Your task to perform on an android device: open app "ZOOM Cloud Meetings" (install if not already installed) and enter user name: "bauxite@icloud.com" and password: "dim" Image 0: 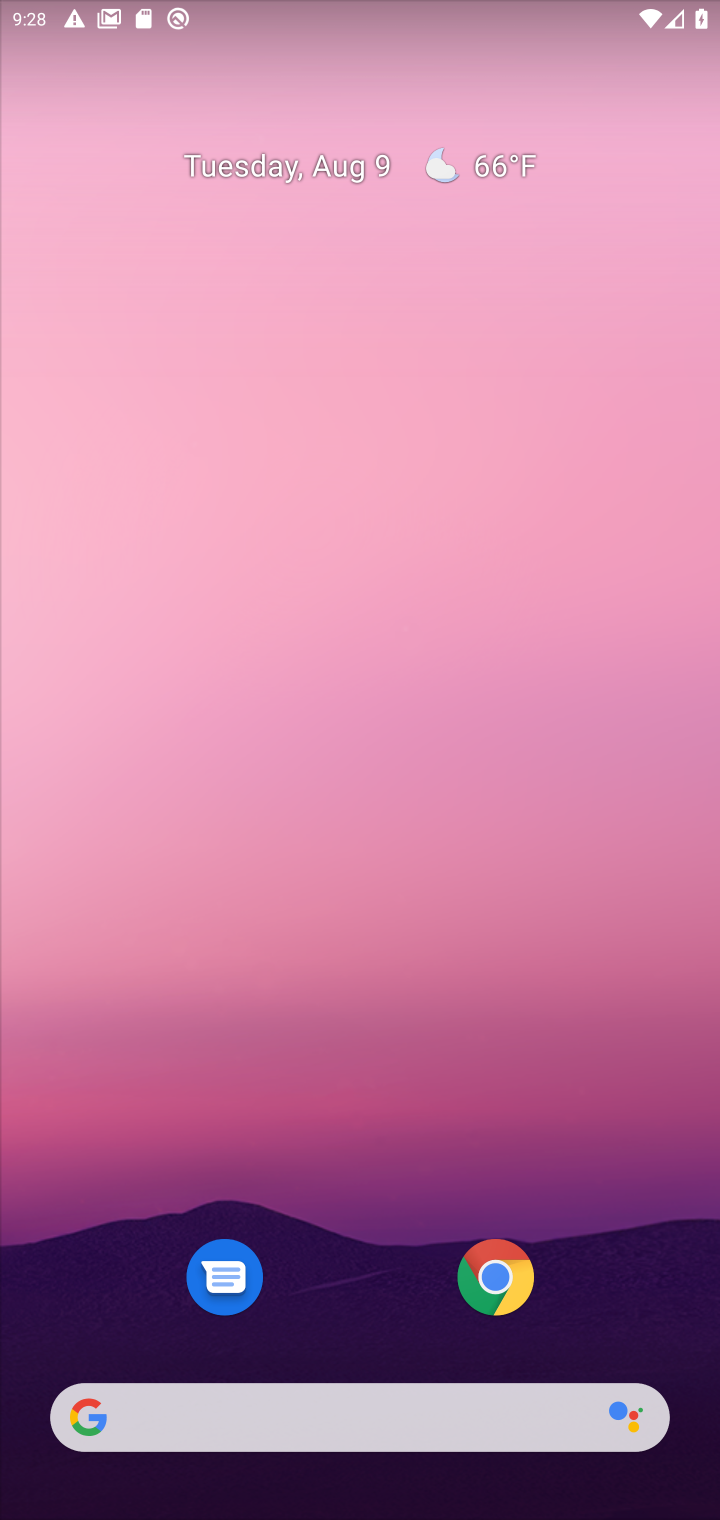
Step 0: press home button
Your task to perform on an android device: open app "ZOOM Cloud Meetings" (install if not already installed) and enter user name: "bauxite@icloud.com" and password: "dim" Image 1: 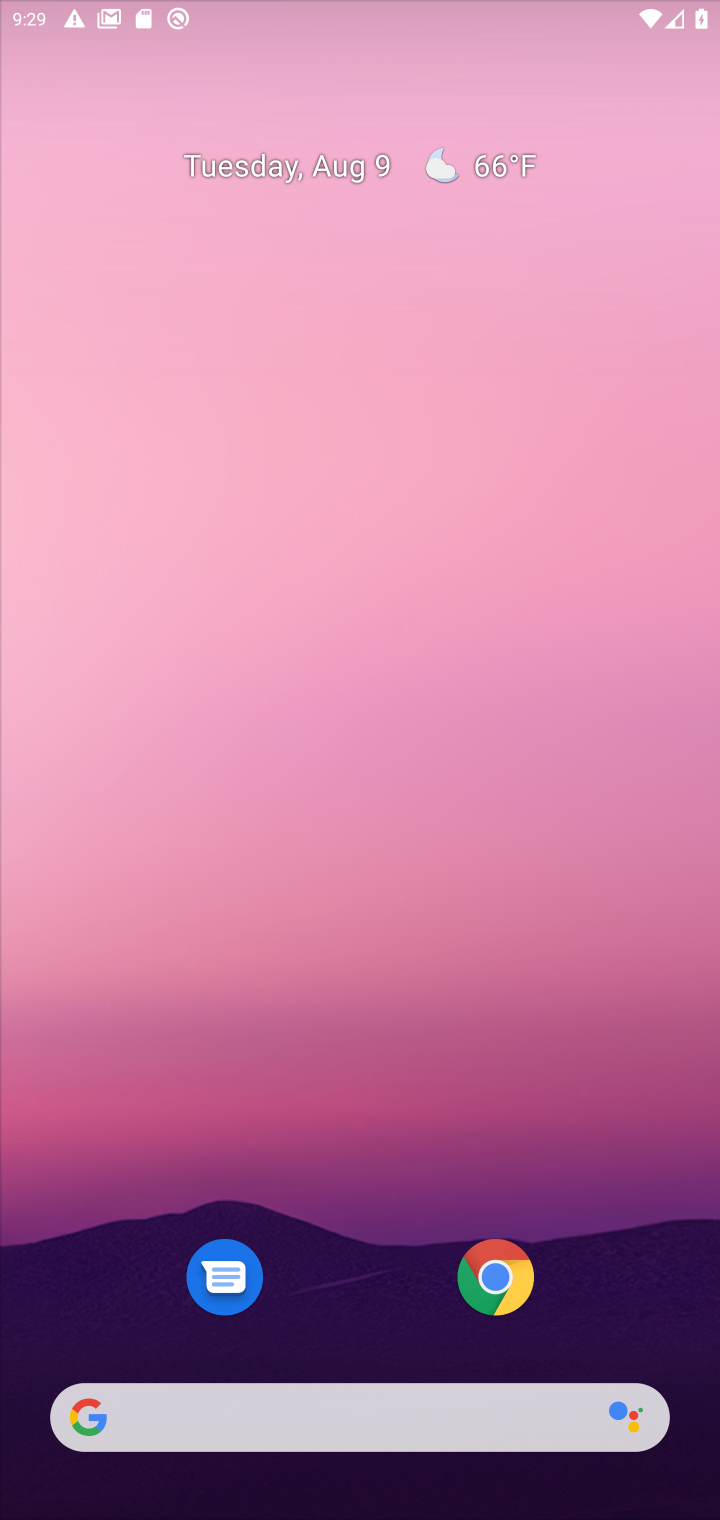
Step 1: drag from (304, 1326) to (173, 26)
Your task to perform on an android device: open app "ZOOM Cloud Meetings" (install if not already installed) and enter user name: "bauxite@icloud.com" and password: "dim" Image 2: 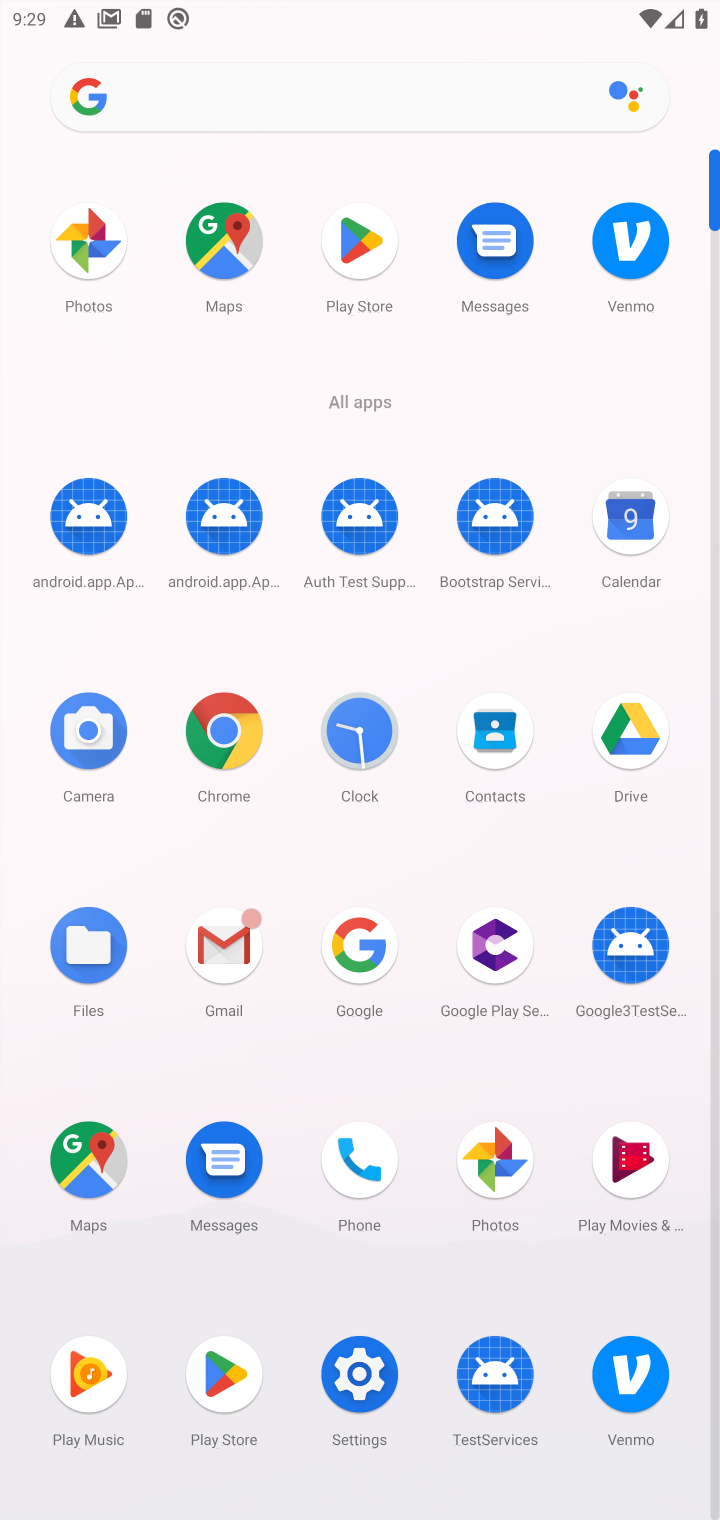
Step 2: click (220, 1418)
Your task to perform on an android device: open app "ZOOM Cloud Meetings" (install if not already installed) and enter user name: "bauxite@icloud.com" and password: "dim" Image 3: 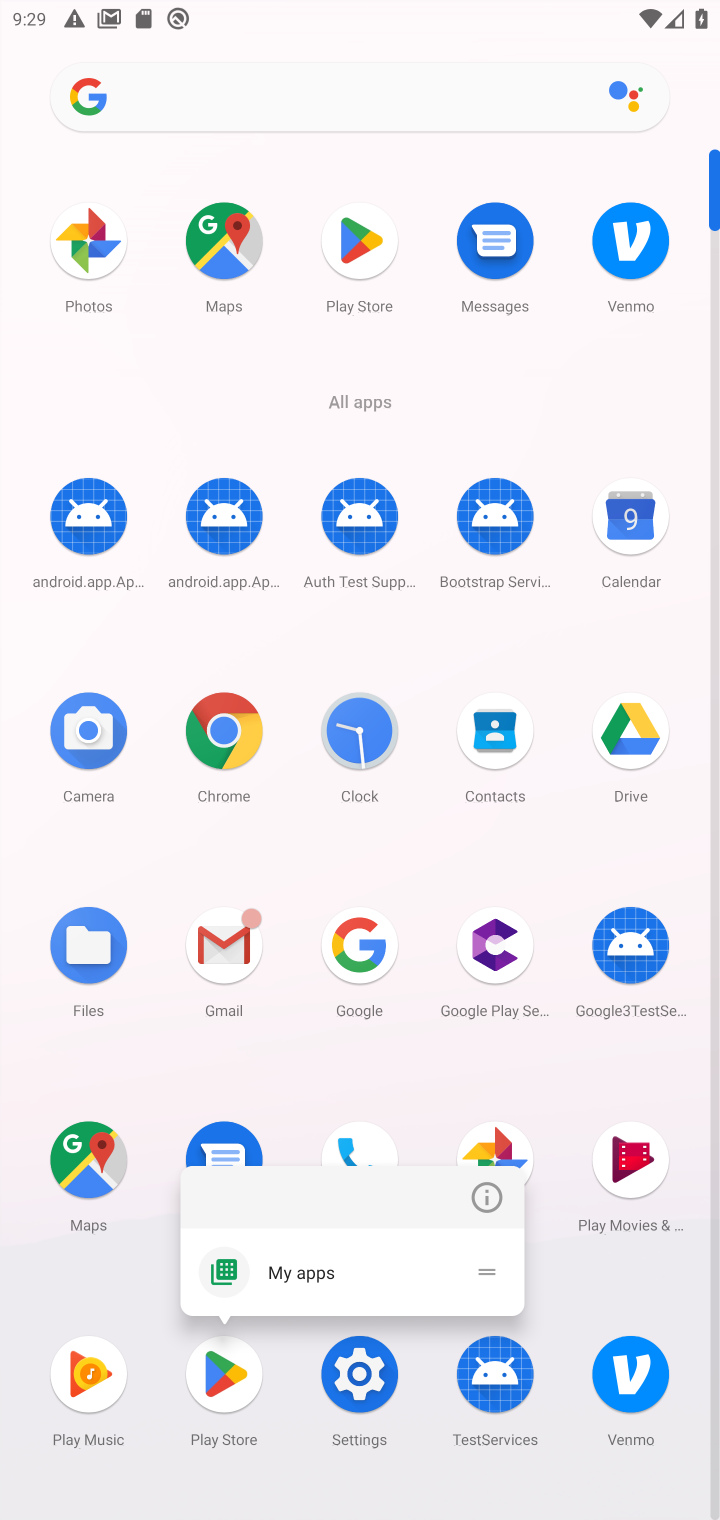
Step 3: click (221, 1416)
Your task to perform on an android device: open app "ZOOM Cloud Meetings" (install if not already installed) and enter user name: "bauxite@icloud.com" and password: "dim" Image 4: 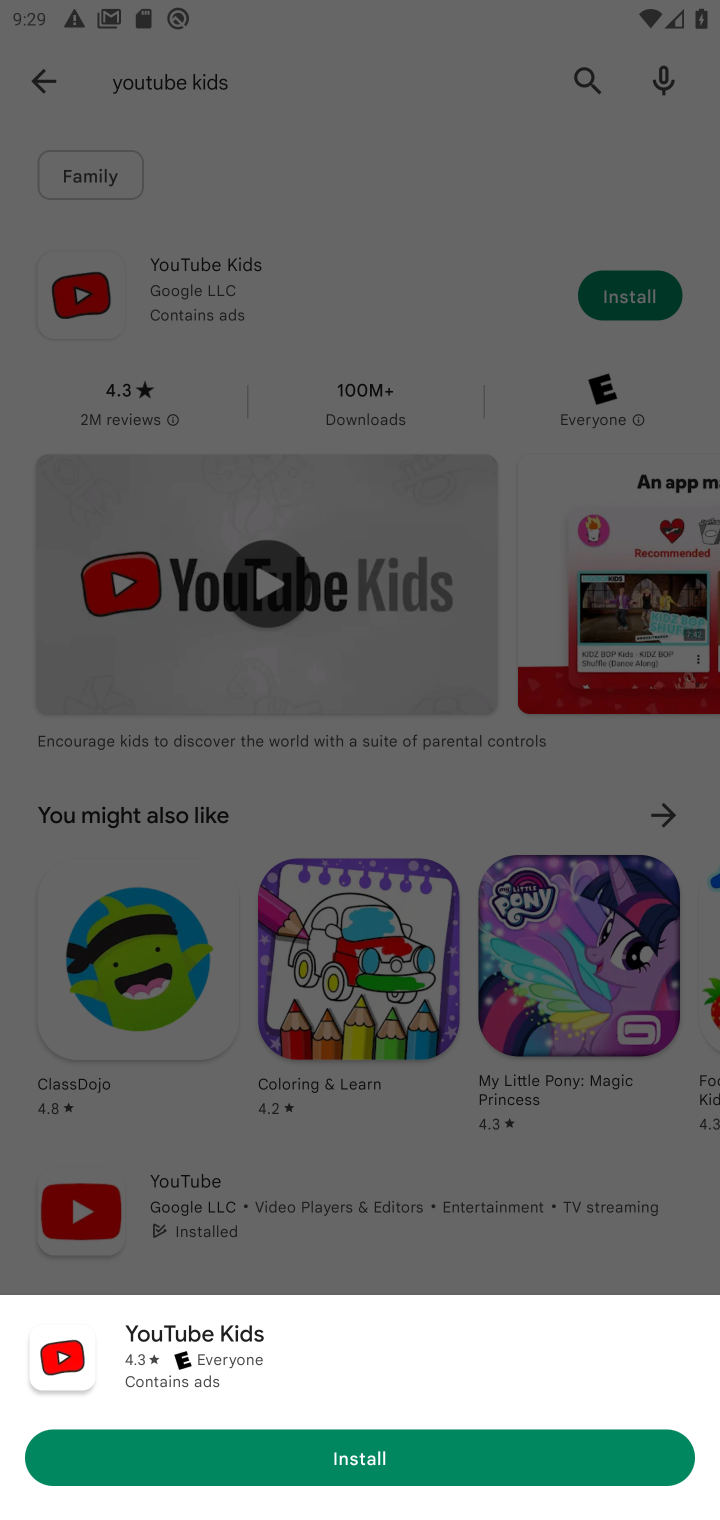
Step 4: press back button
Your task to perform on an android device: open app "ZOOM Cloud Meetings" (install if not already installed) and enter user name: "bauxite@icloud.com" and password: "dim" Image 5: 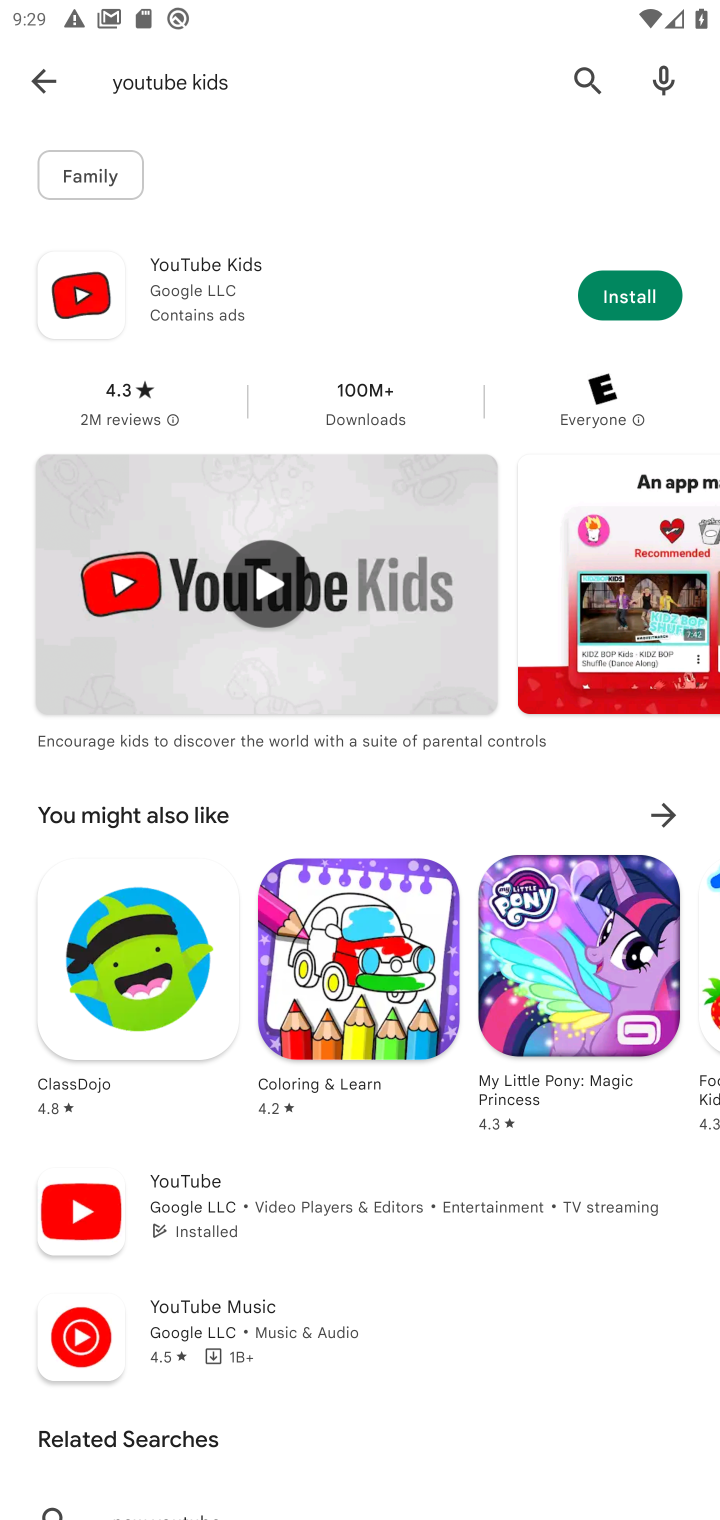
Step 5: click (583, 76)
Your task to perform on an android device: open app "ZOOM Cloud Meetings" (install if not already installed) and enter user name: "bauxite@icloud.com" and password: "dim" Image 6: 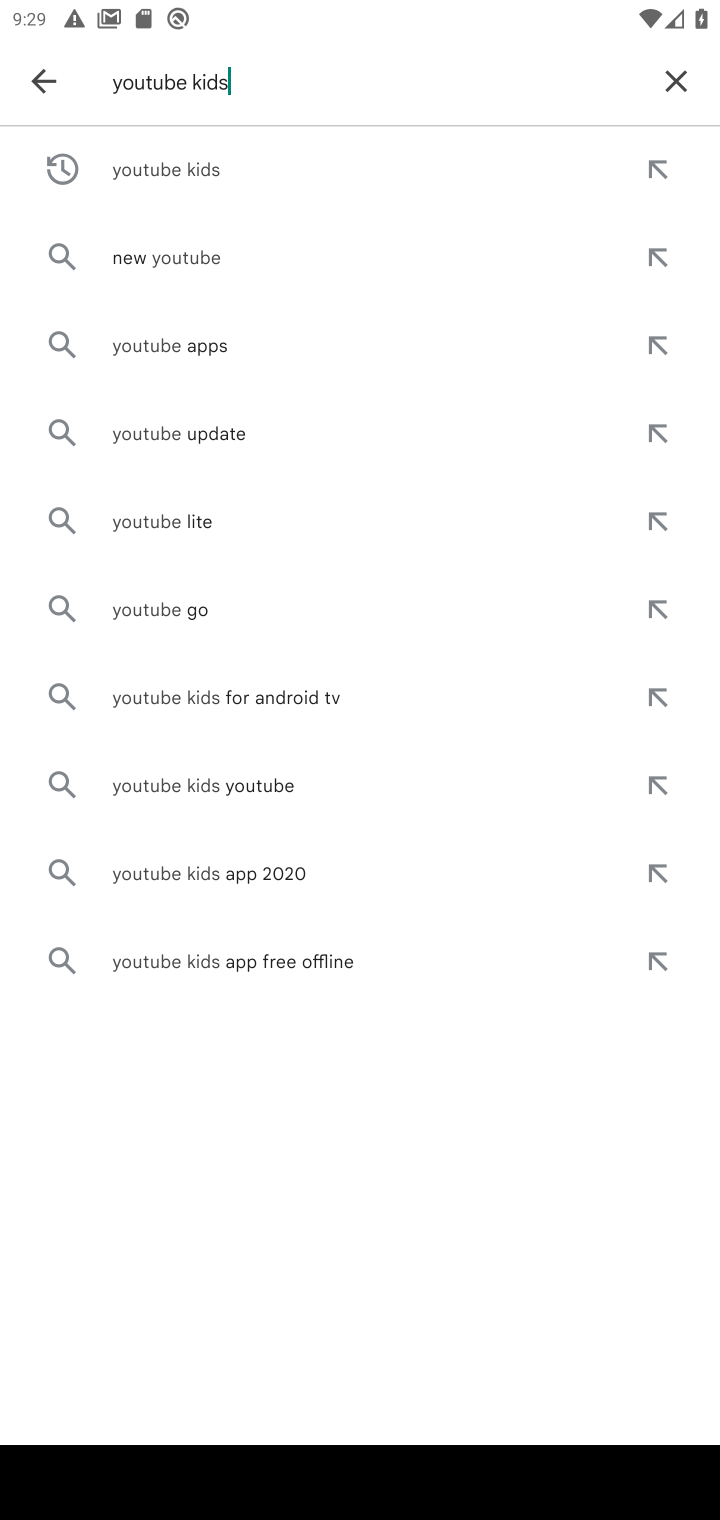
Step 6: click (673, 84)
Your task to perform on an android device: open app "ZOOM Cloud Meetings" (install if not already installed) and enter user name: "bauxite@icloud.com" and password: "dim" Image 7: 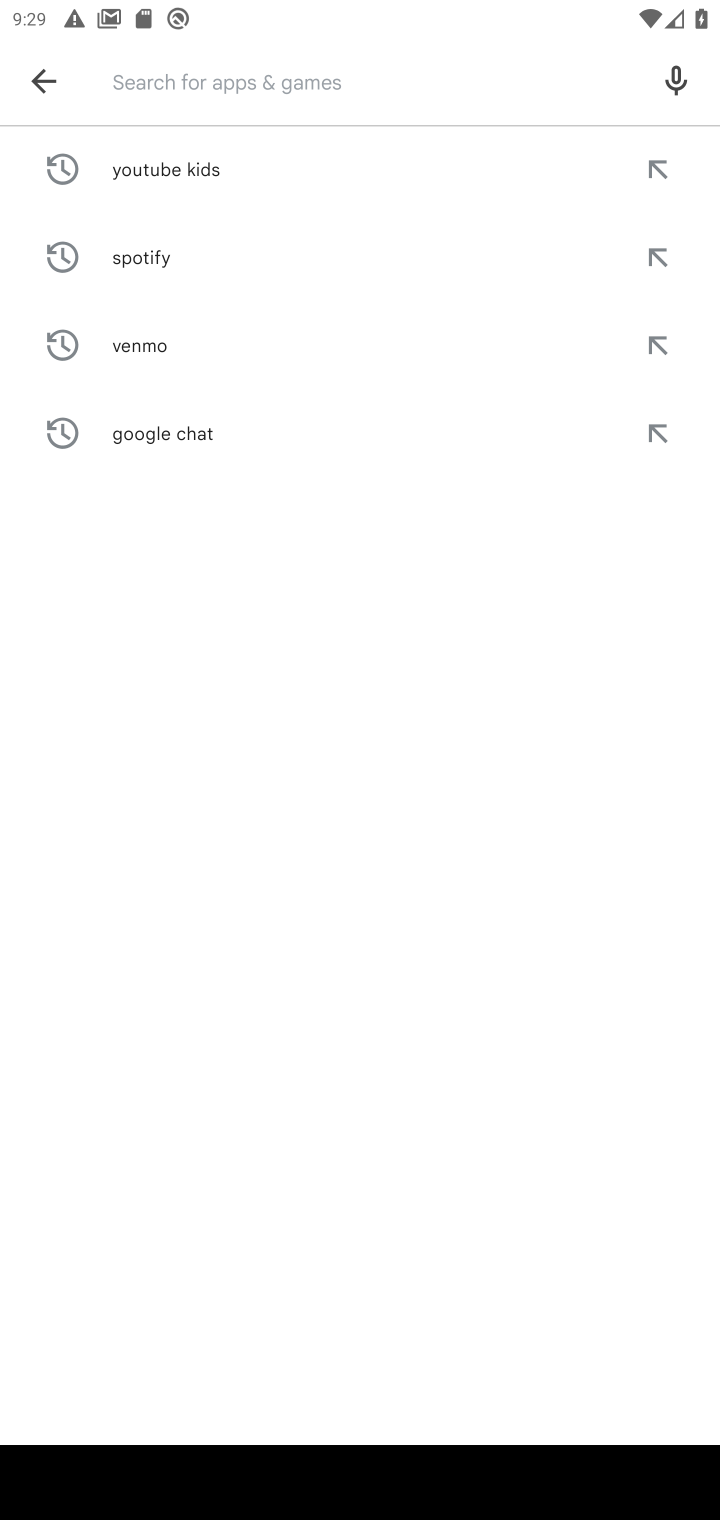
Step 7: type "ZOOM Cloud Meetings"
Your task to perform on an android device: open app "ZOOM Cloud Meetings" (install if not already installed) and enter user name: "bauxite@icloud.com" and password: "dim" Image 8: 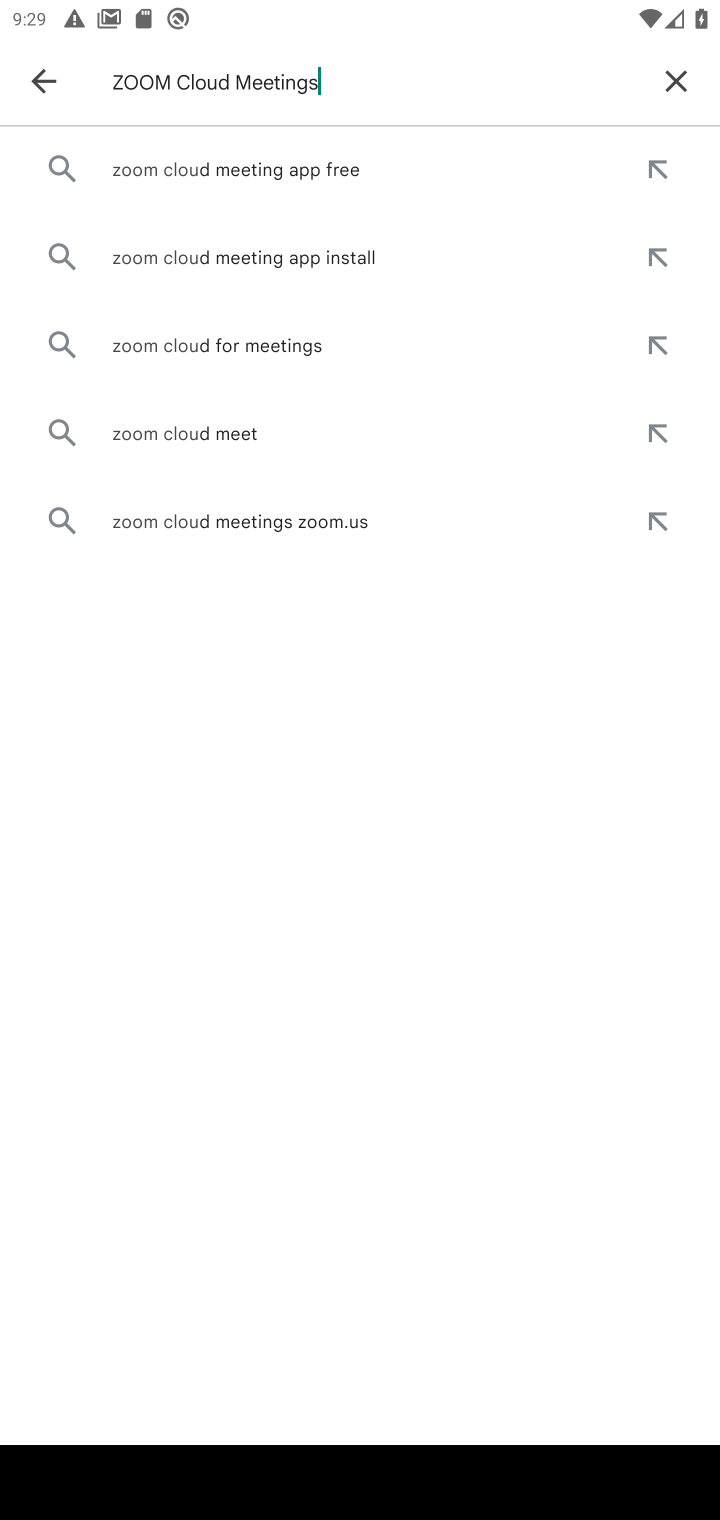
Step 8: type ""
Your task to perform on an android device: open app "ZOOM Cloud Meetings" (install if not already installed) and enter user name: "bauxite@icloud.com" and password: "dim" Image 9: 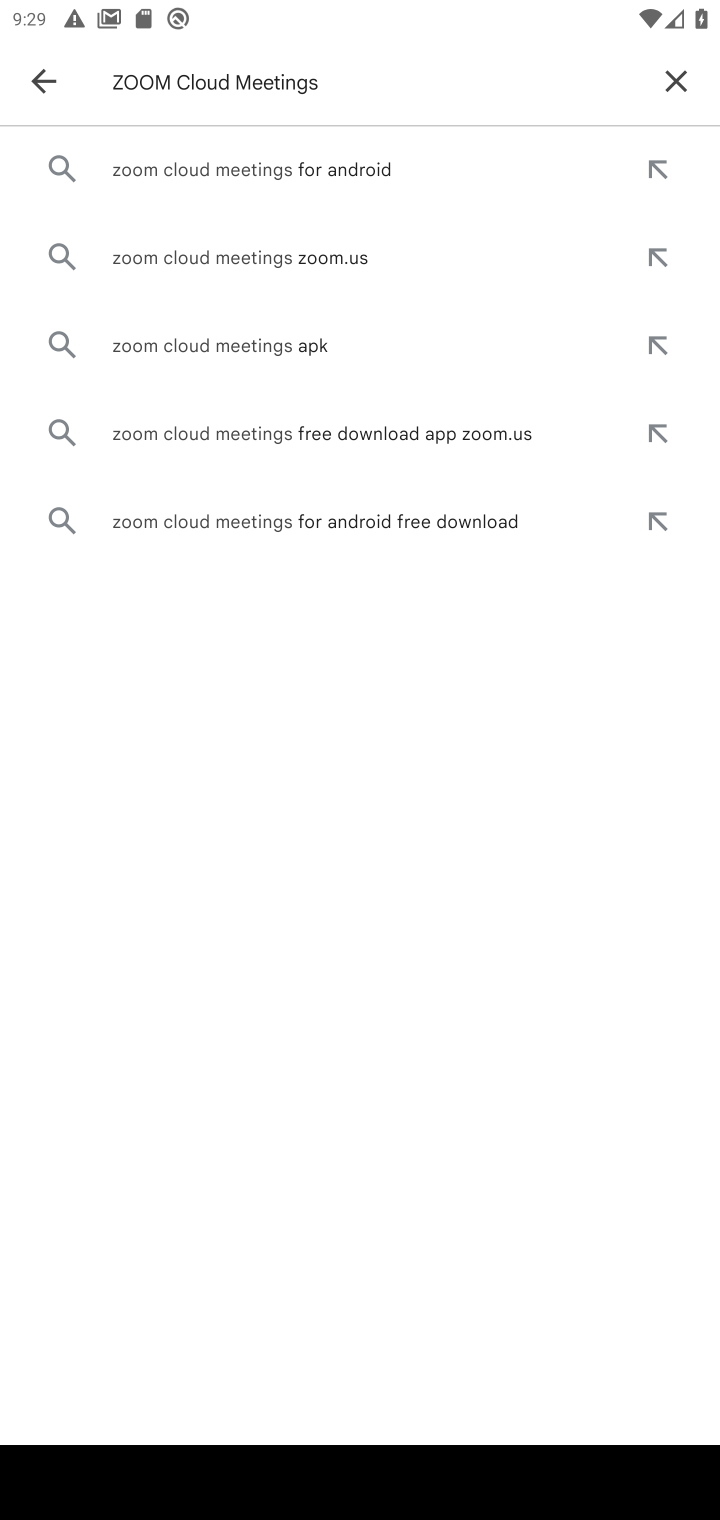
Step 9: click (189, 165)
Your task to perform on an android device: open app "ZOOM Cloud Meetings" (install if not already installed) and enter user name: "bauxite@icloud.com" and password: "dim" Image 10: 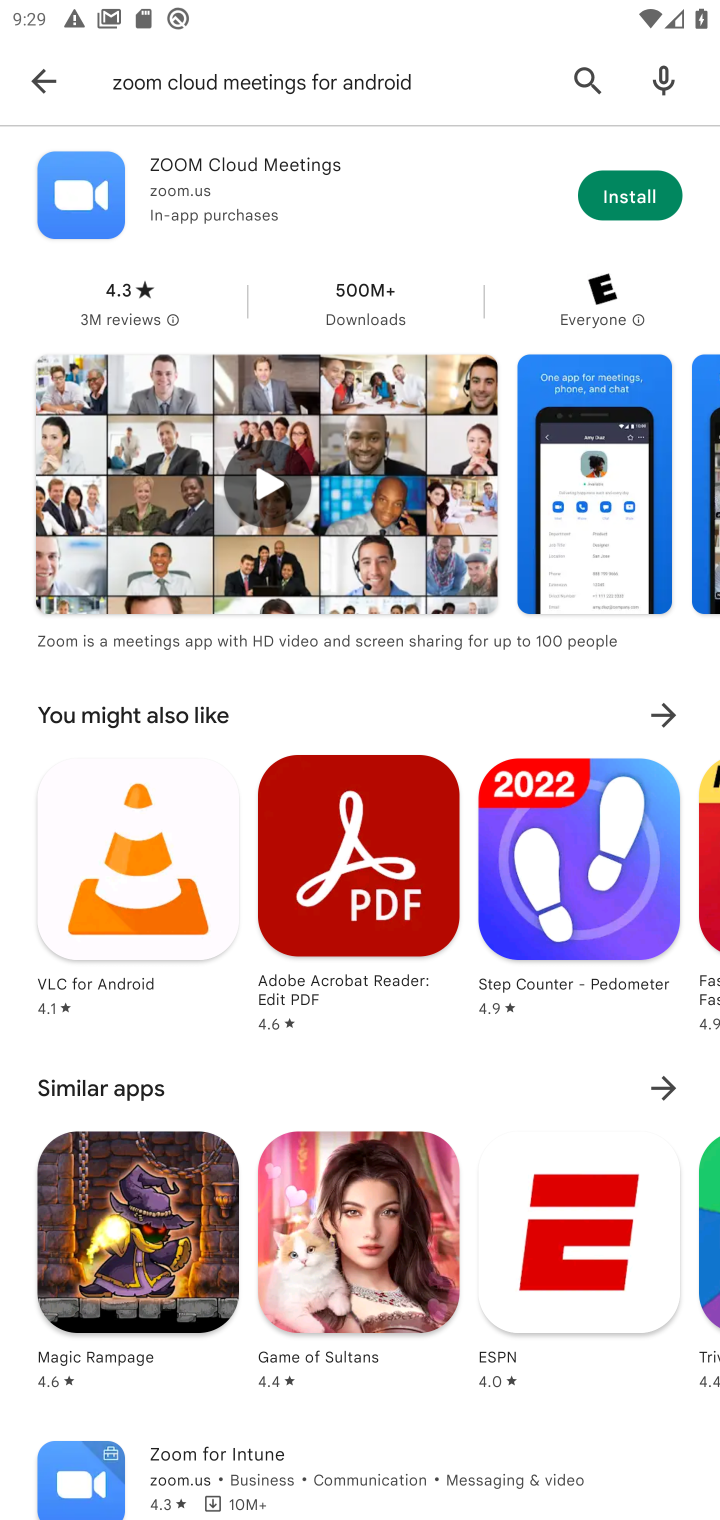
Step 10: click (623, 186)
Your task to perform on an android device: open app "ZOOM Cloud Meetings" (install if not already installed) and enter user name: "bauxite@icloud.com" and password: "dim" Image 11: 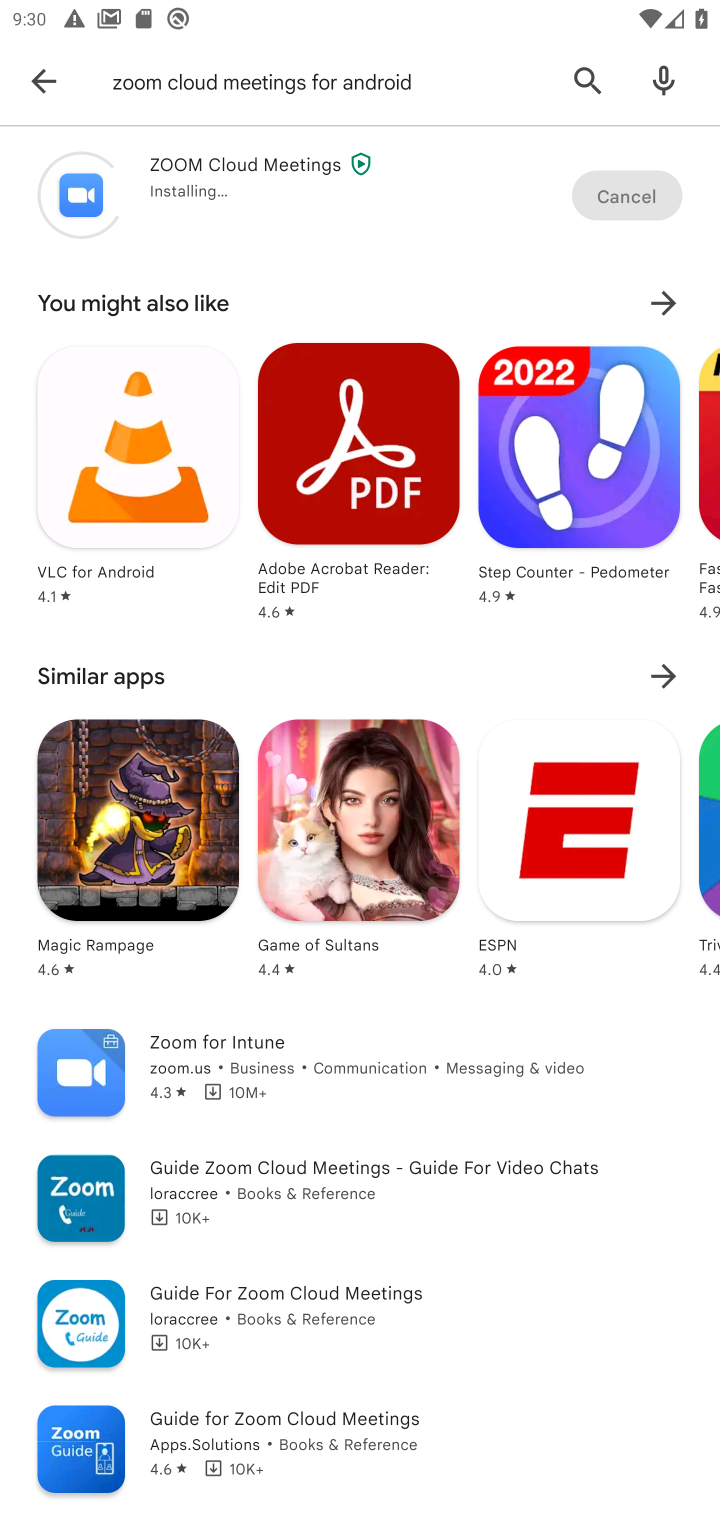
Step 11: click (176, 173)
Your task to perform on an android device: open app "ZOOM Cloud Meetings" (install if not already installed) and enter user name: "bauxite@icloud.com" and password: "dim" Image 12: 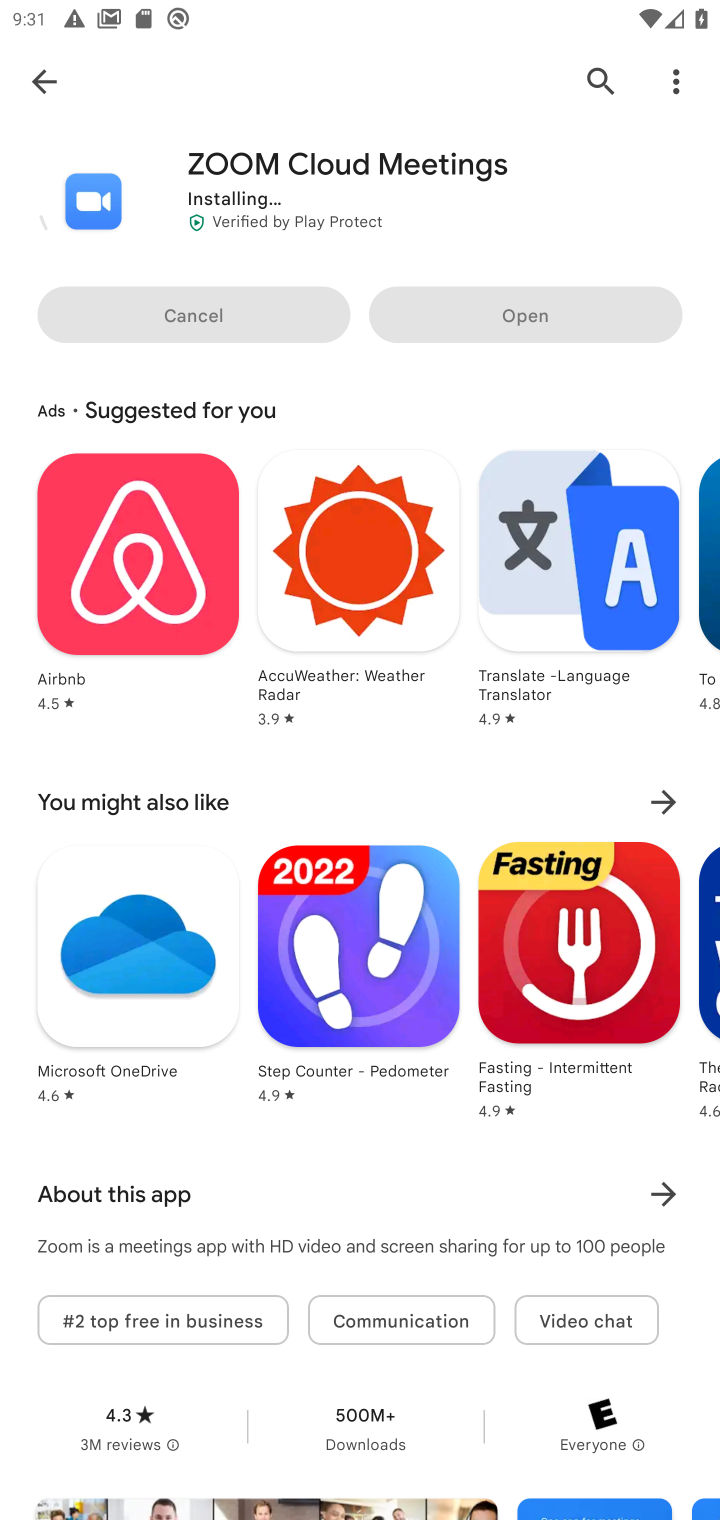
Step 12: drag from (365, 601) to (411, 1034)
Your task to perform on an android device: open app "ZOOM Cloud Meetings" (install if not already installed) and enter user name: "bauxite@icloud.com" and password: "dim" Image 13: 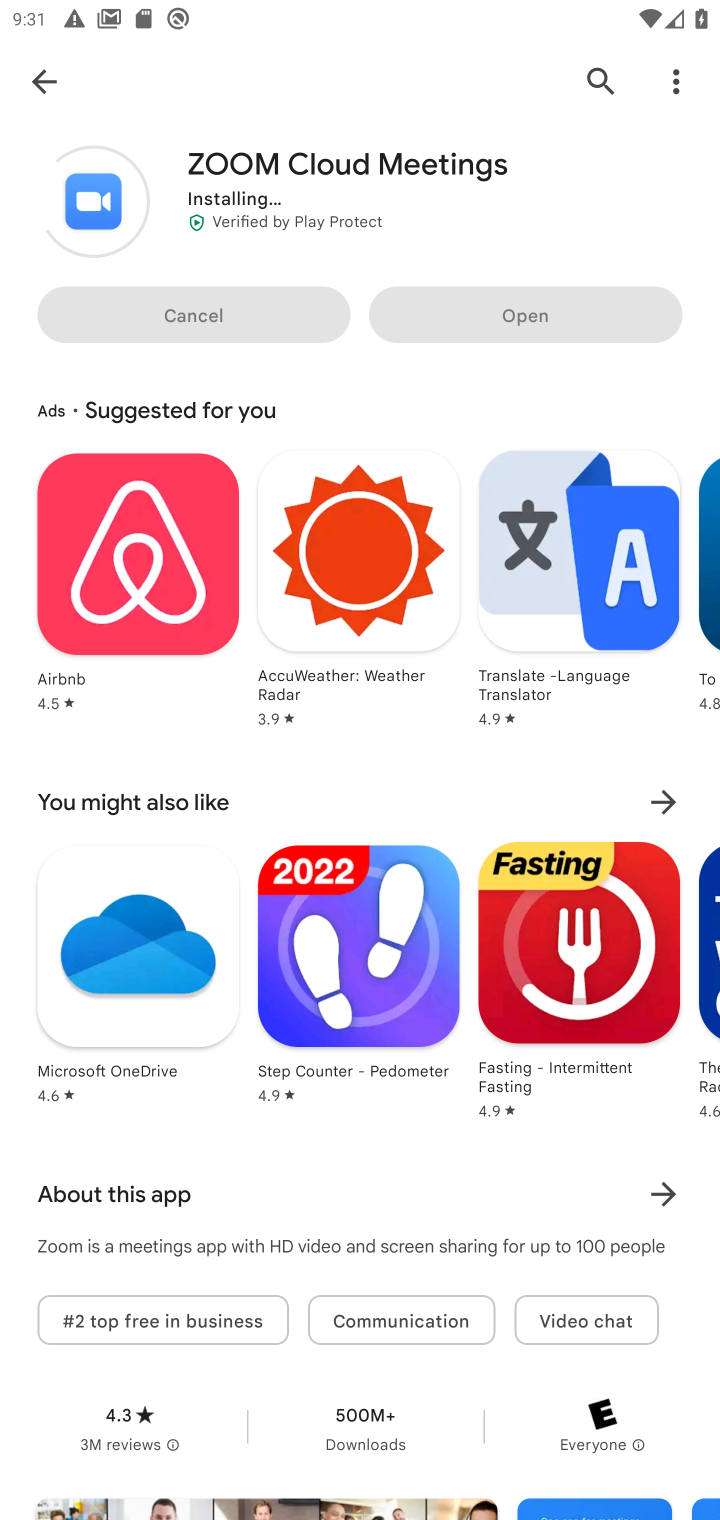
Step 13: drag from (395, 1132) to (443, 1358)
Your task to perform on an android device: open app "ZOOM Cloud Meetings" (install if not already installed) and enter user name: "bauxite@icloud.com" and password: "dim" Image 14: 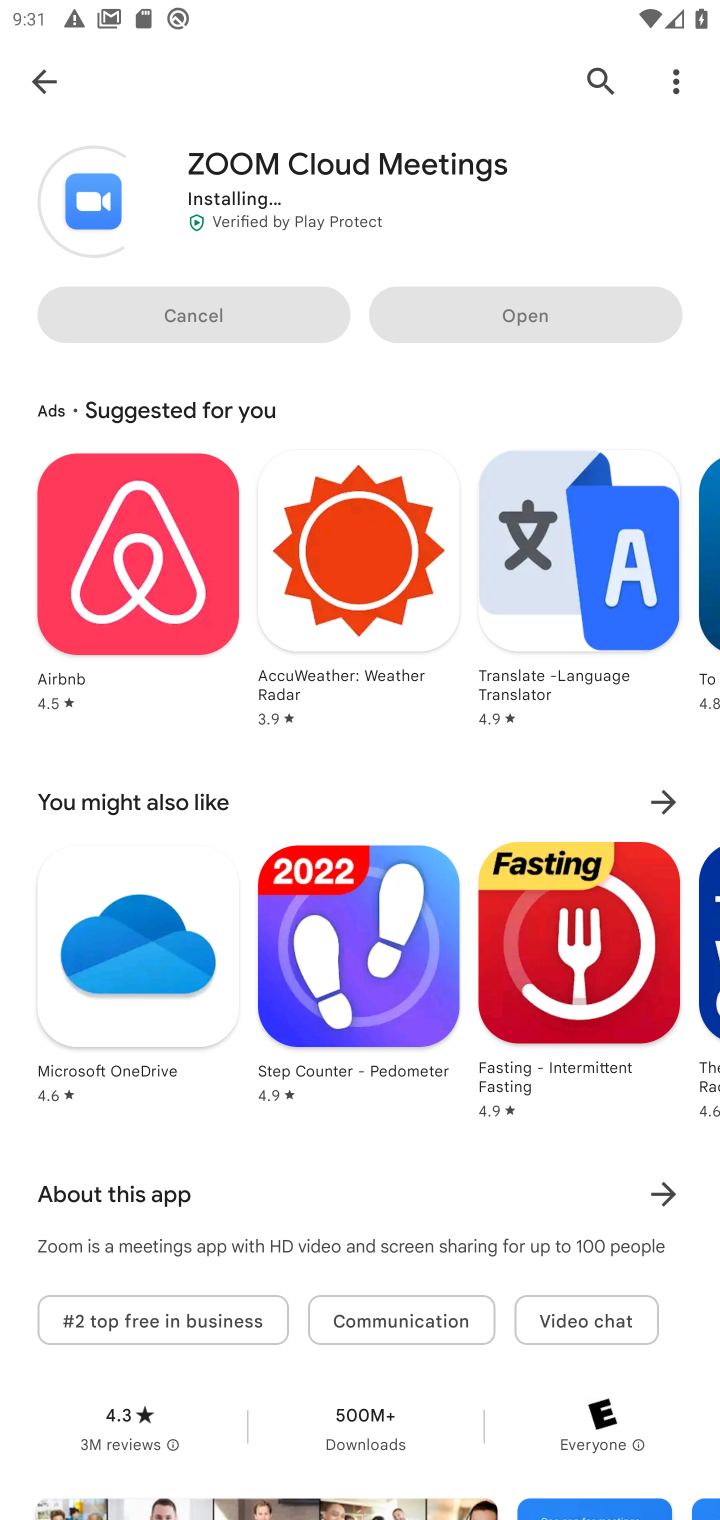
Step 14: press home button
Your task to perform on an android device: open app "ZOOM Cloud Meetings" (install if not already installed) and enter user name: "bauxite@icloud.com" and password: "dim" Image 15: 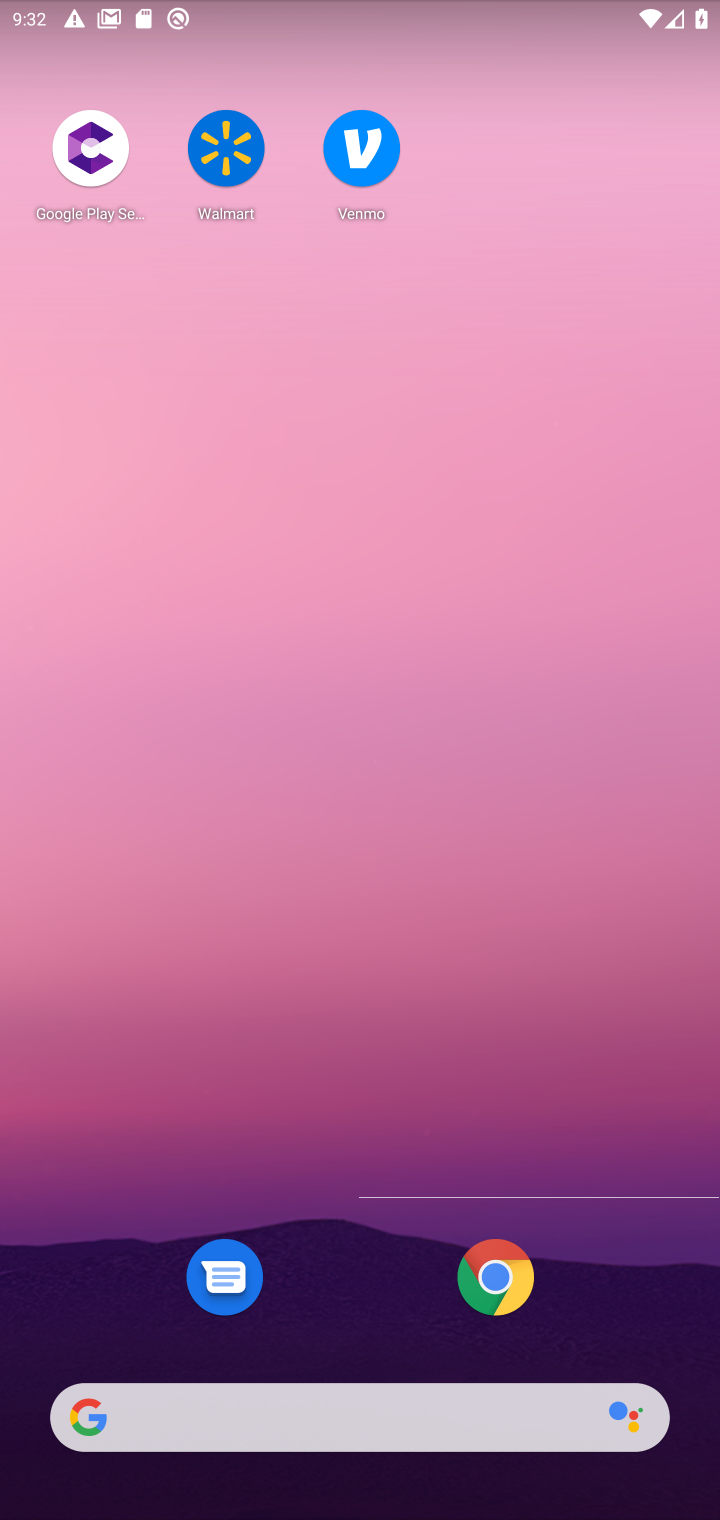
Step 15: drag from (361, 1375) to (552, 33)
Your task to perform on an android device: open app "ZOOM Cloud Meetings" (install if not already installed) and enter user name: "bauxite@icloud.com" and password: "dim" Image 16: 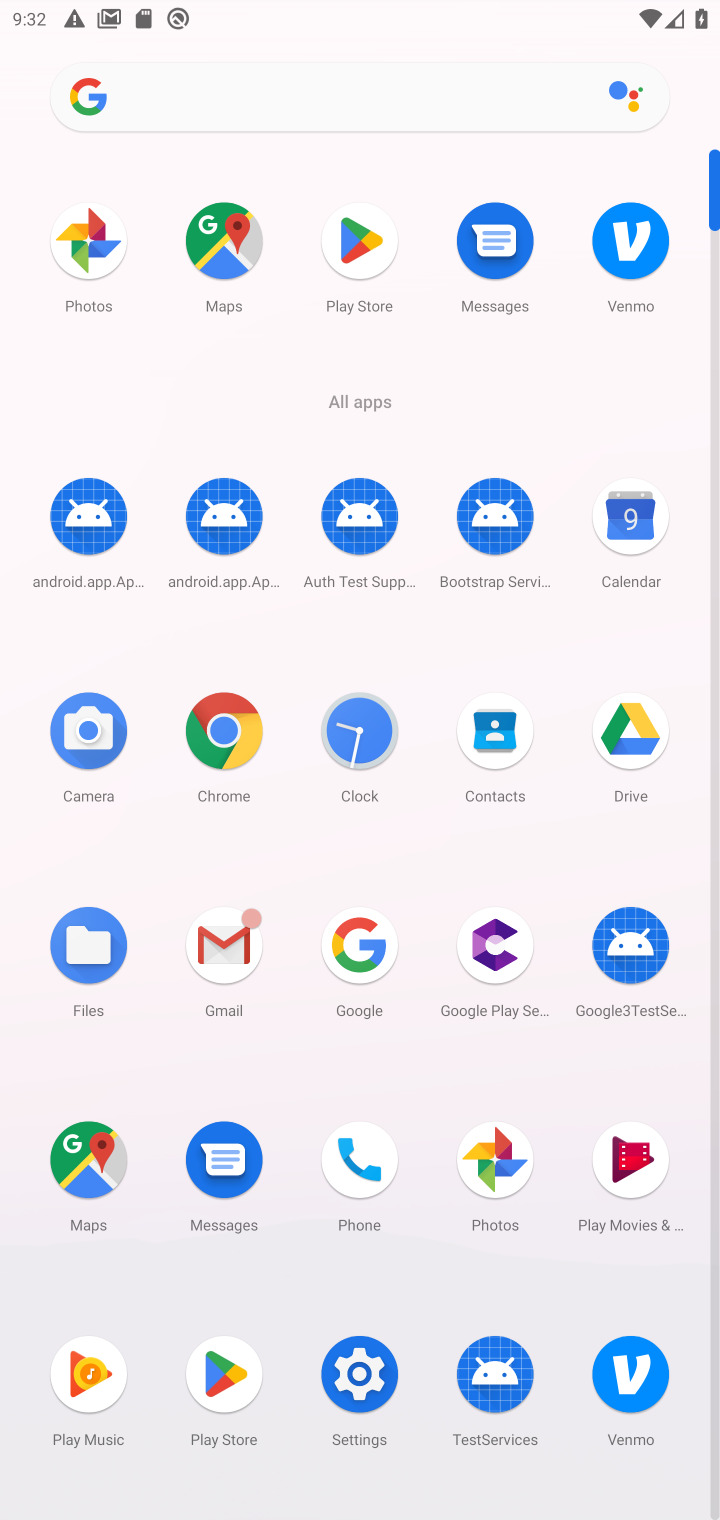
Step 16: click (223, 1362)
Your task to perform on an android device: open app "ZOOM Cloud Meetings" (install if not already installed) and enter user name: "bauxite@icloud.com" and password: "dim" Image 17: 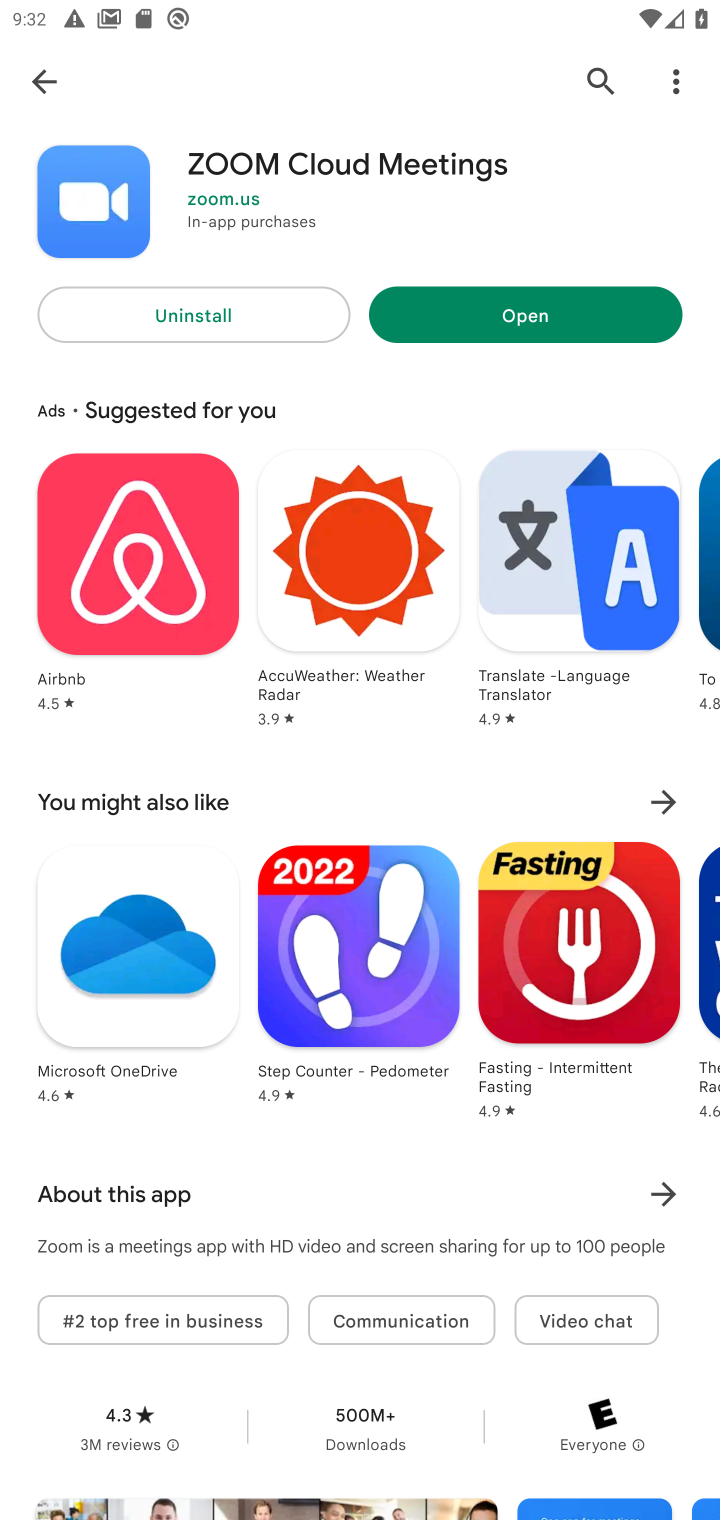
Step 17: click (548, 310)
Your task to perform on an android device: open app "ZOOM Cloud Meetings" (install if not already installed) and enter user name: "bauxite@icloud.com" and password: "dim" Image 18: 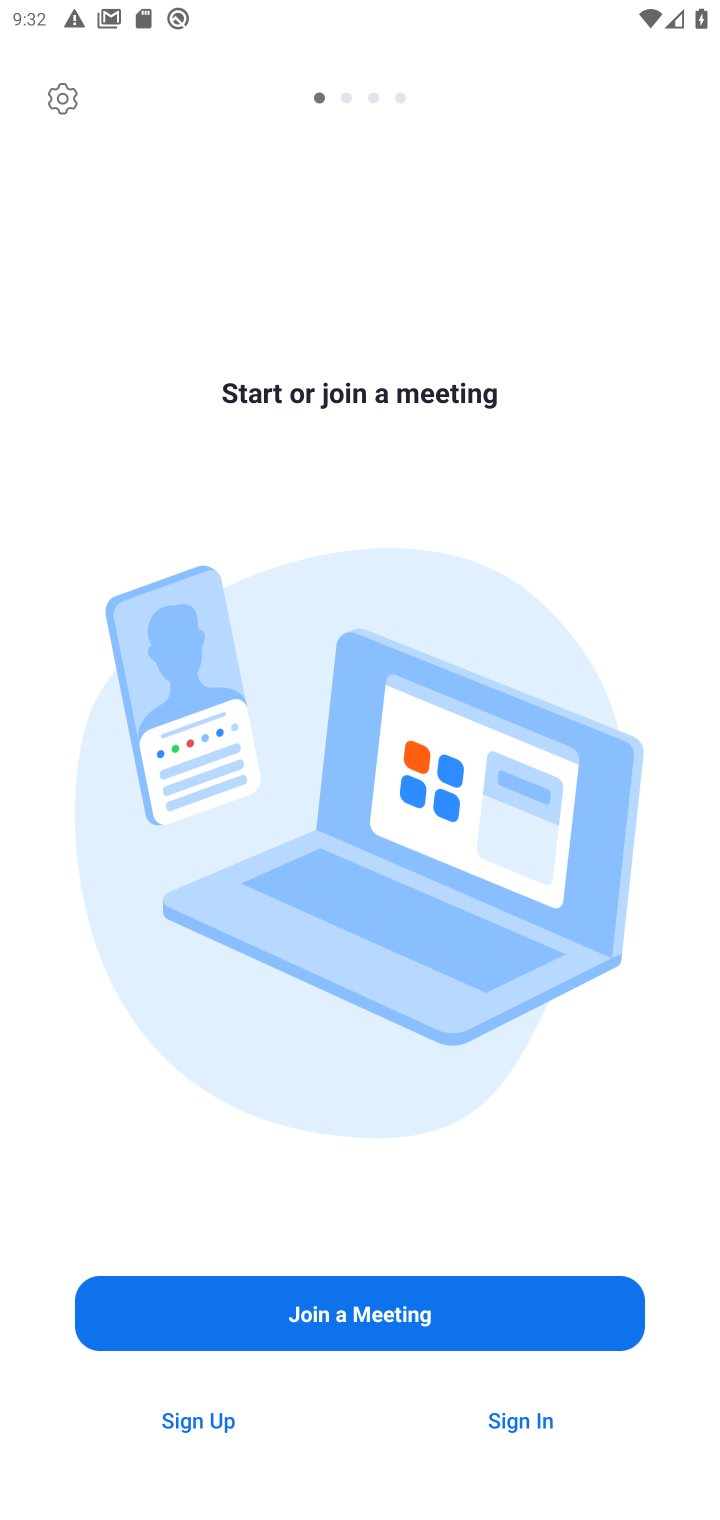
Step 18: click (496, 1408)
Your task to perform on an android device: open app "ZOOM Cloud Meetings" (install if not already installed) and enter user name: "bauxite@icloud.com" and password: "dim" Image 19: 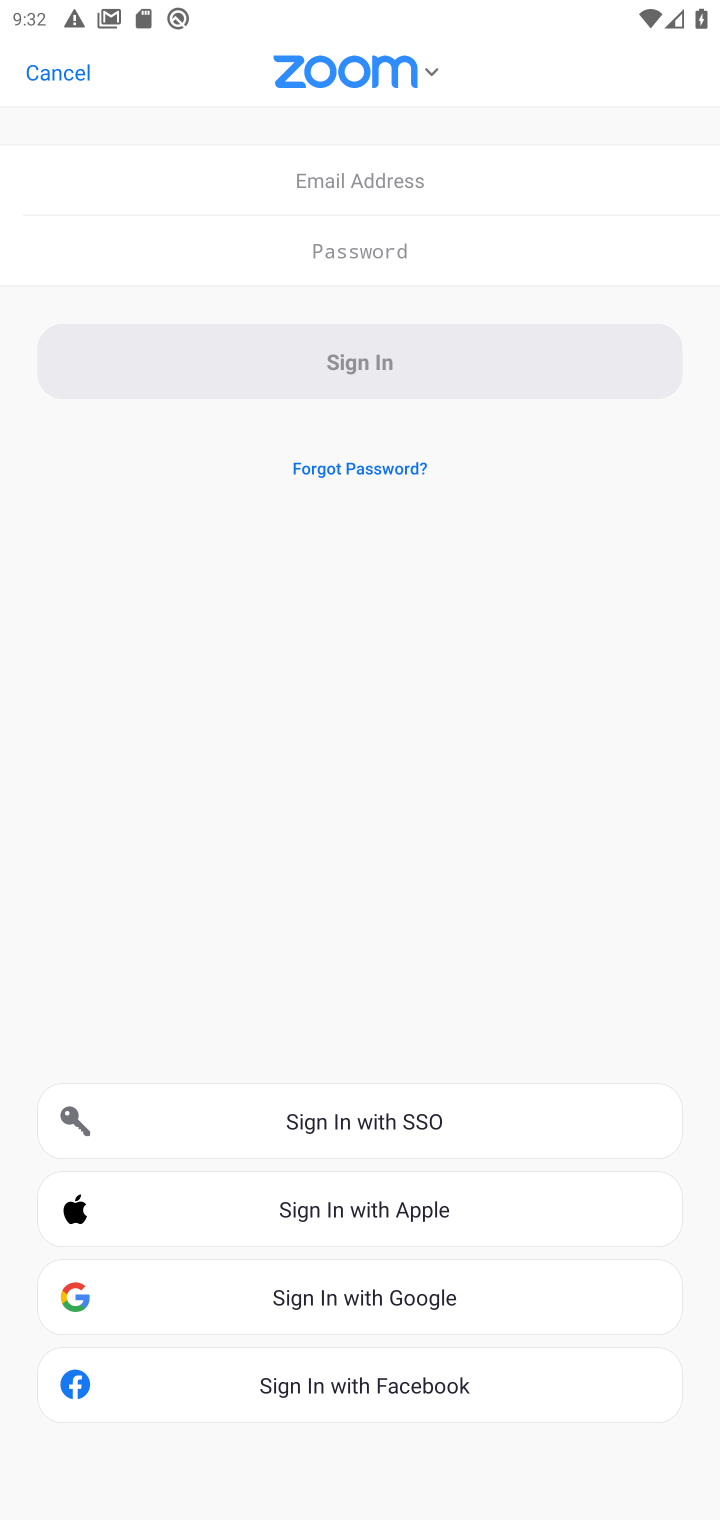
Step 19: click (361, 170)
Your task to perform on an android device: open app "ZOOM Cloud Meetings" (install if not already installed) and enter user name: "bauxite@icloud.com" and password: "dim" Image 20: 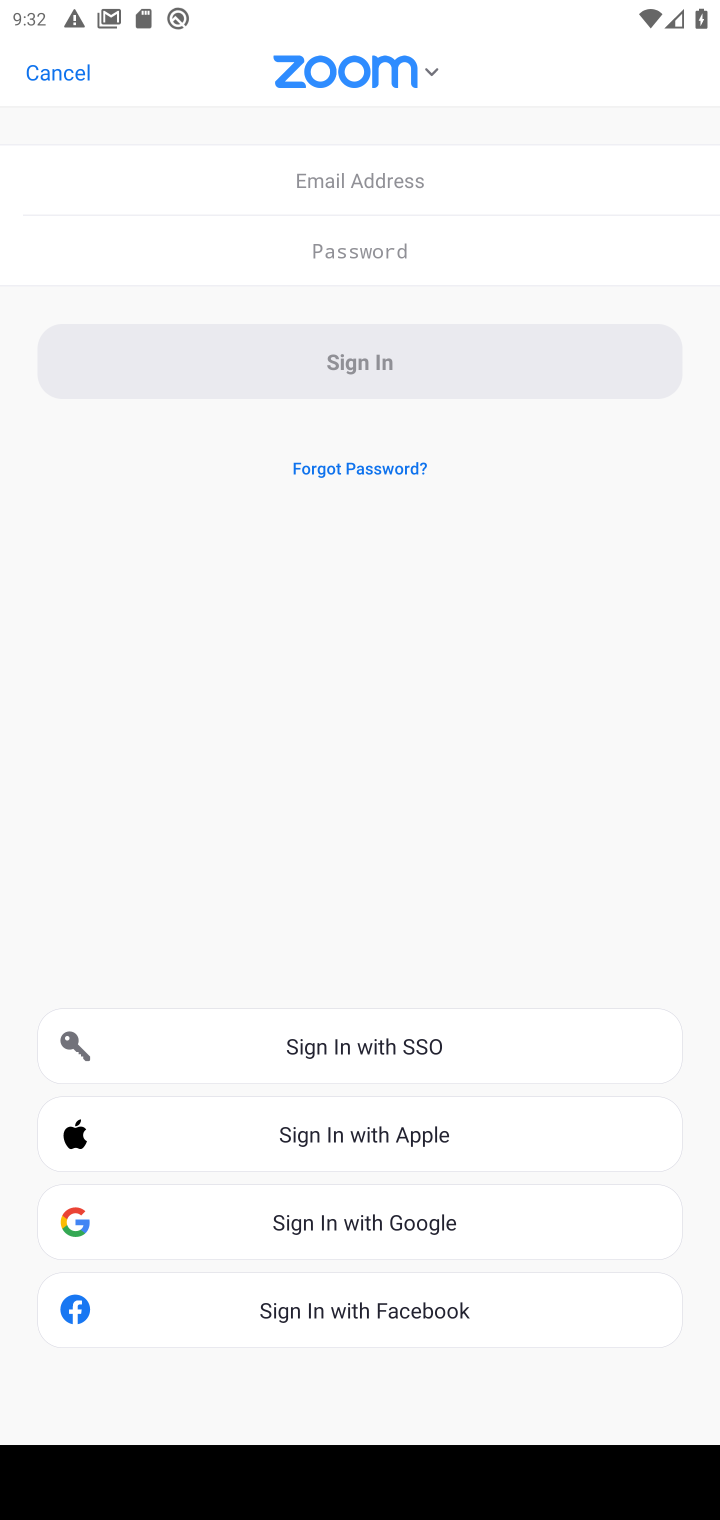
Step 20: type "bauxite@icloud.com"
Your task to perform on an android device: open app "ZOOM Cloud Meetings" (install if not already installed) and enter user name: "bauxite@icloud.com" and password: "dim" Image 21: 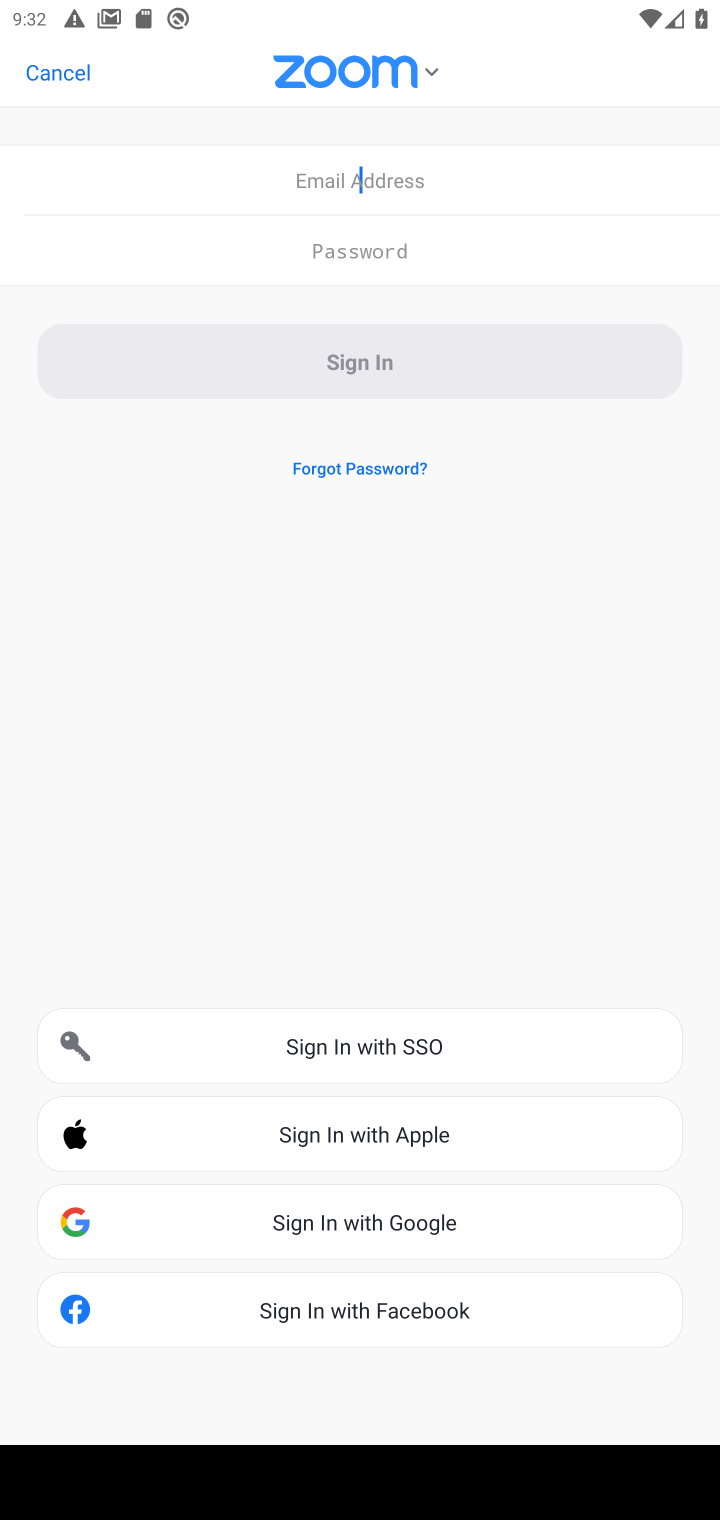
Step 21: click (347, 243)
Your task to perform on an android device: open app "ZOOM Cloud Meetings" (install if not already installed) and enter user name: "bauxite@icloud.com" and password: "dim" Image 22: 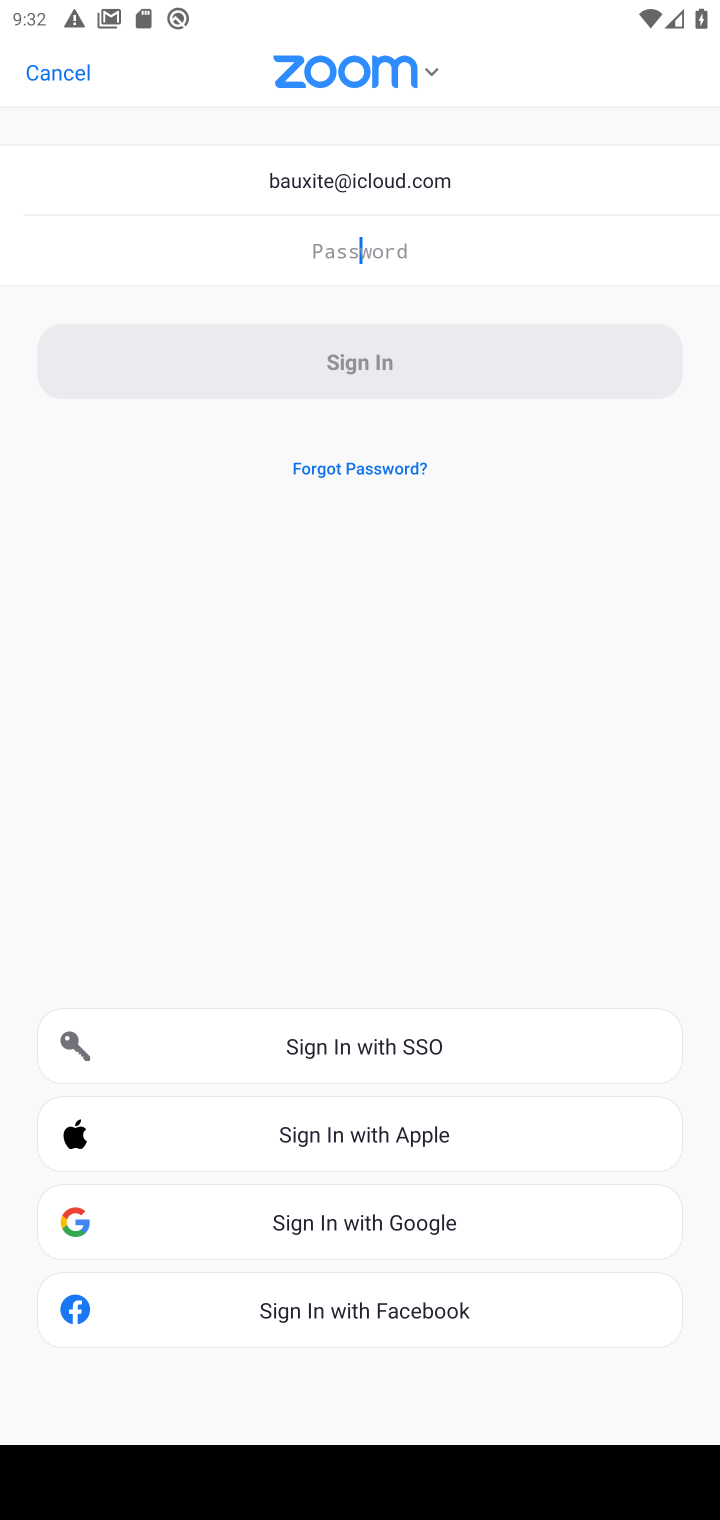
Step 22: type "dim"
Your task to perform on an android device: open app "ZOOM Cloud Meetings" (install if not already installed) and enter user name: "bauxite@icloud.com" and password: "dim" Image 23: 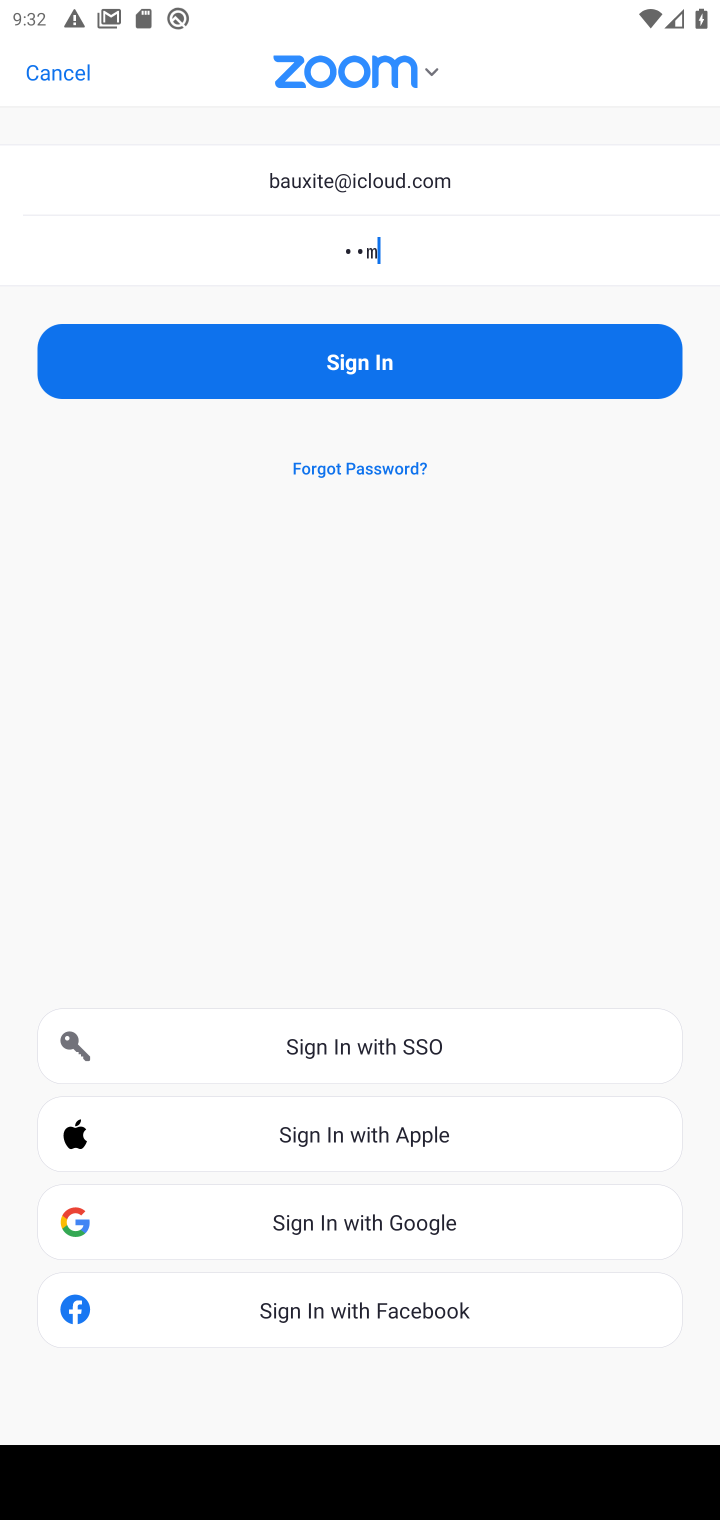
Step 23: type ""
Your task to perform on an android device: open app "ZOOM Cloud Meetings" (install if not already installed) and enter user name: "bauxite@icloud.com" and password: "dim" Image 24: 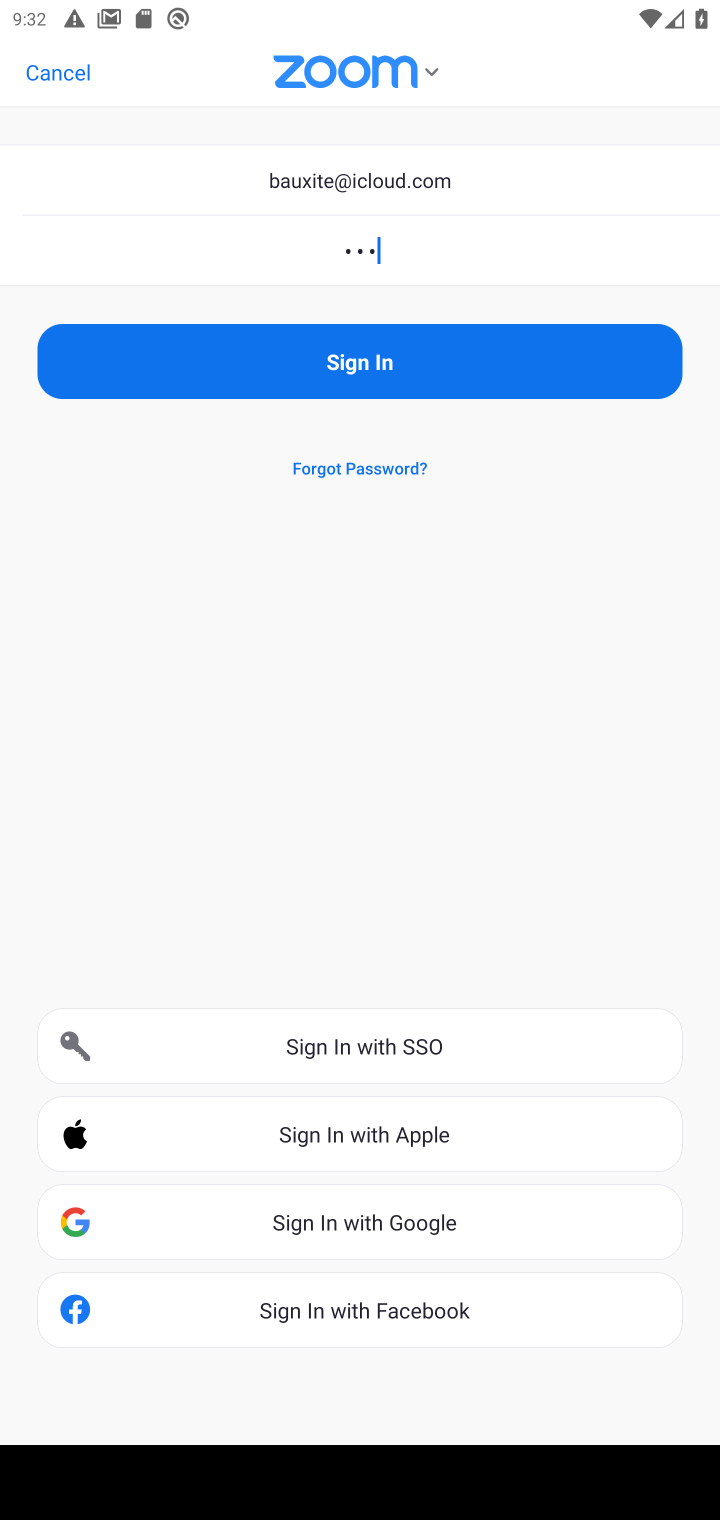
Step 24: task complete